Your task to perform on an android device: set the timer Image 0: 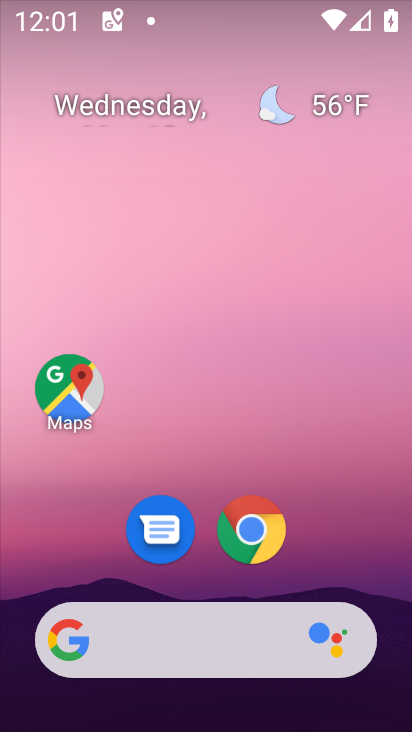
Step 0: drag from (397, 549) to (396, 362)
Your task to perform on an android device: set the timer Image 1: 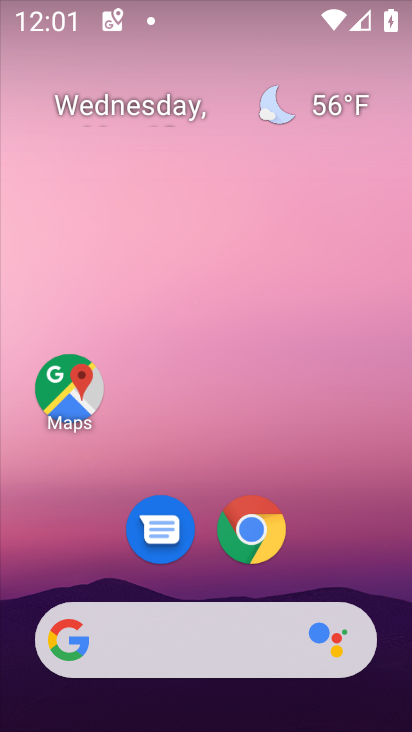
Step 1: drag from (405, 666) to (404, 313)
Your task to perform on an android device: set the timer Image 2: 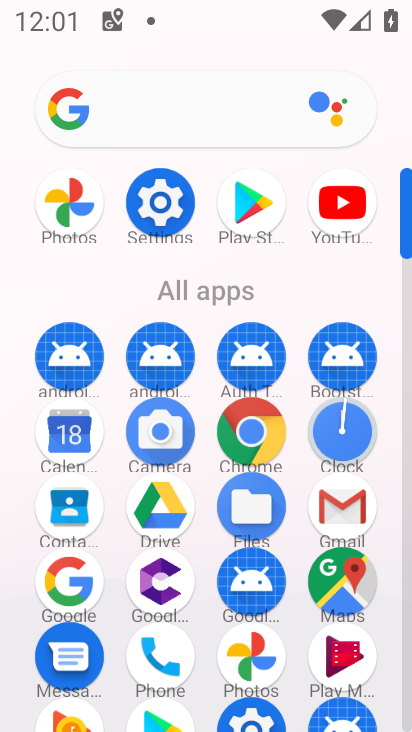
Step 2: click (243, 708)
Your task to perform on an android device: set the timer Image 3: 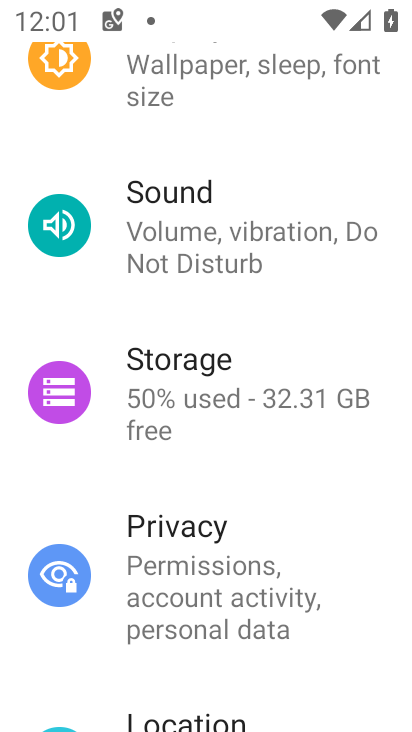
Step 3: press home button
Your task to perform on an android device: set the timer Image 4: 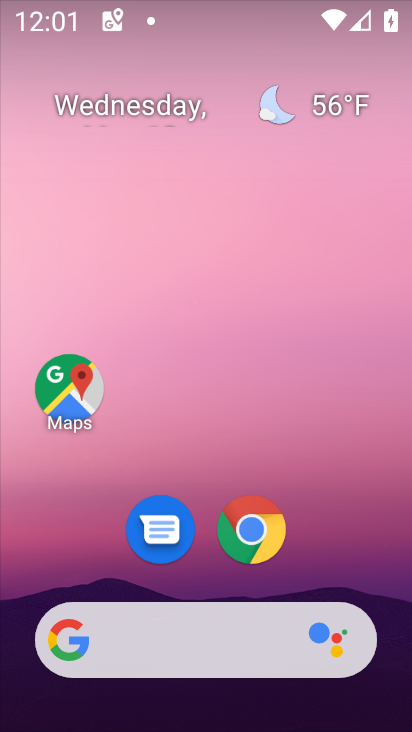
Step 4: click (411, 79)
Your task to perform on an android device: set the timer Image 5: 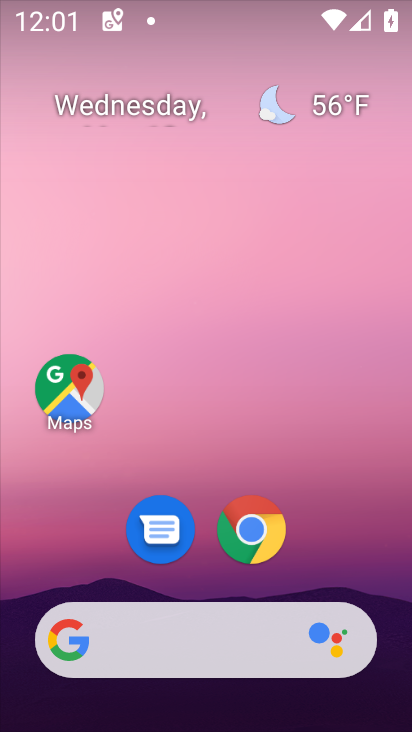
Step 5: drag from (393, 689) to (372, 300)
Your task to perform on an android device: set the timer Image 6: 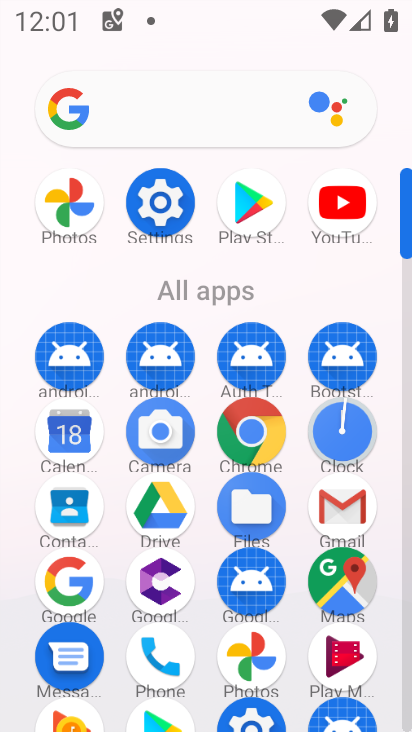
Step 6: click (363, 433)
Your task to perform on an android device: set the timer Image 7: 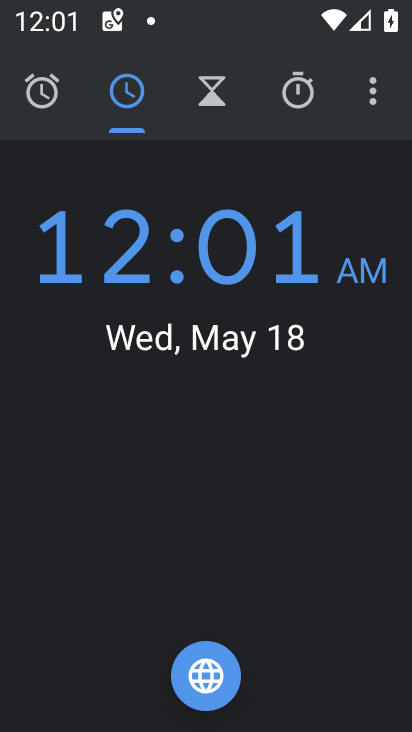
Step 7: click (295, 84)
Your task to perform on an android device: set the timer Image 8: 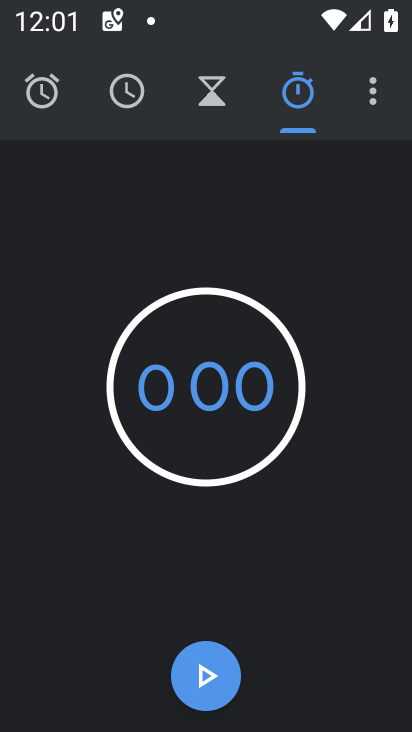
Step 8: click (205, 687)
Your task to perform on an android device: set the timer Image 9: 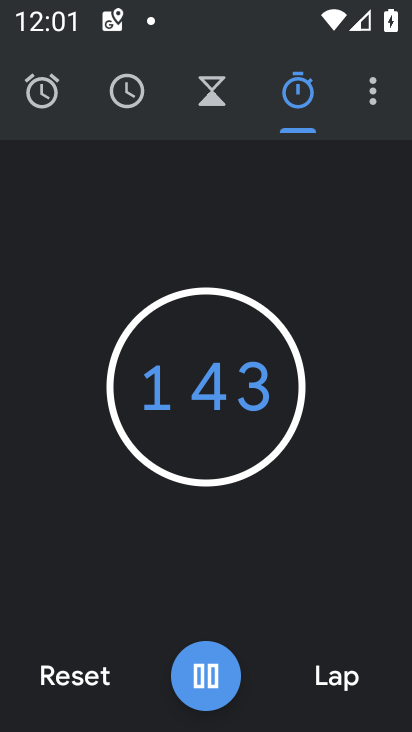
Step 9: task complete